Your task to perform on an android device: Open Yahoo.com Image 0: 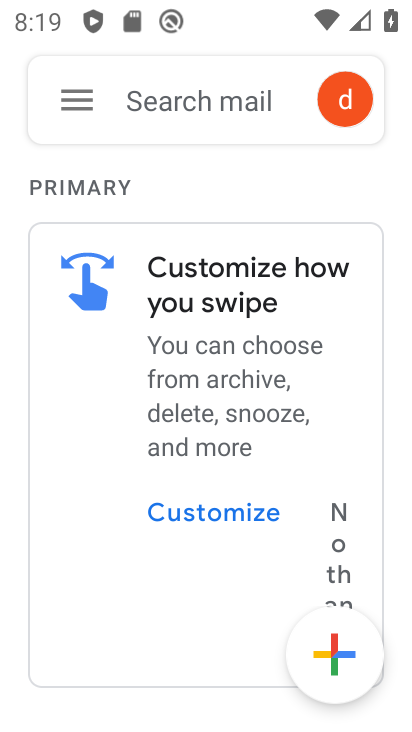
Step 0: press home button
Your task to perform on an android device: Open Yahoo.com Image 1: 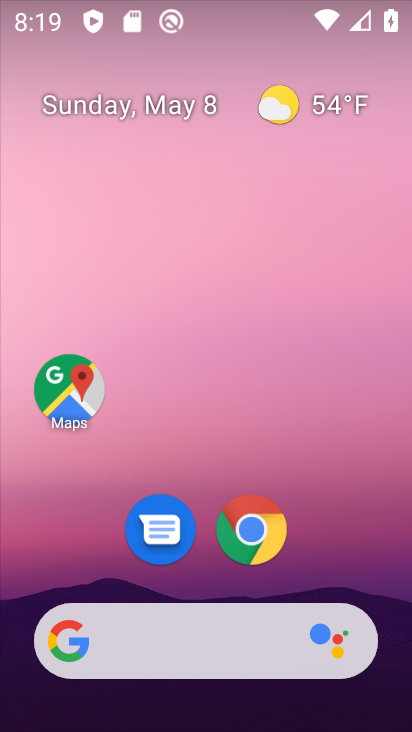
Step 1: drag from (371, 538) to (396, 102)
Your task to perform on an android device: Open Yahoo.com Image 2: 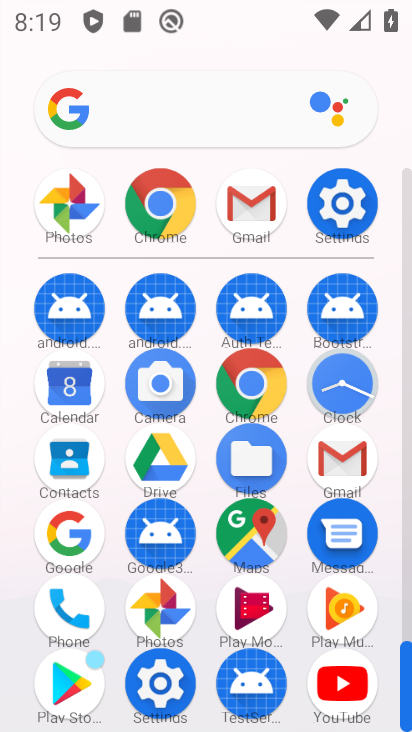
Step 2: click (151, 218)
Your task to perform on an android device: Open Yahoo.com Image 3: 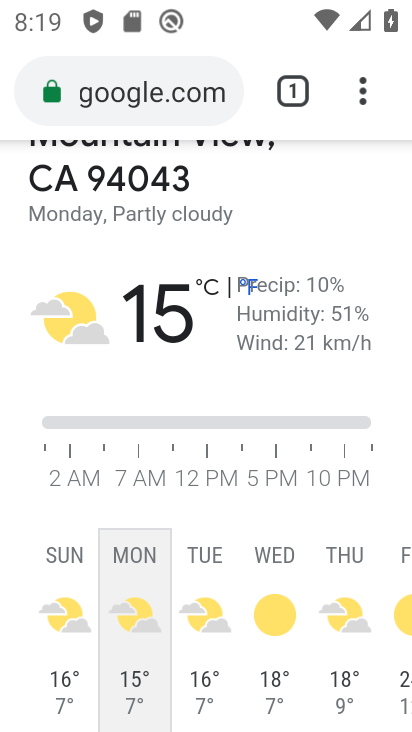
Step 3: click (147, 108)
Your task to perform on an android device: Open Yahoo.com Image 4: 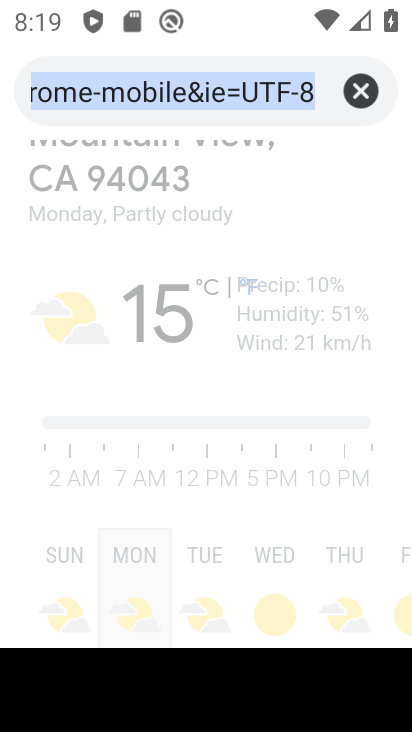
Step 4: click (362, 92)
Your task to perform on an android device: Open Yahoo.com Image 5: 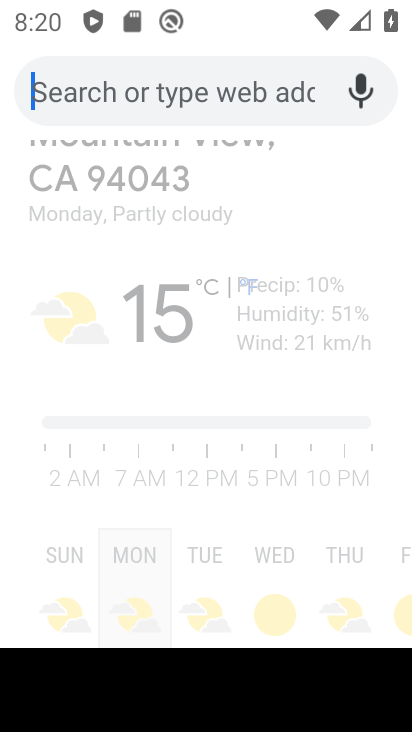
Step 5: type "yahoo.com"
Your task to perform on an android device: Open Yahoo.com Image 6: 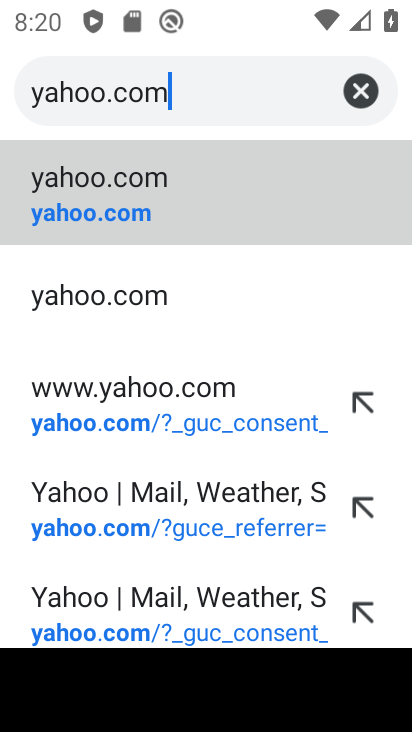
Step 6: click (69, 192)
Your task to perform on an android device: Open Yahoo.com Image 7: 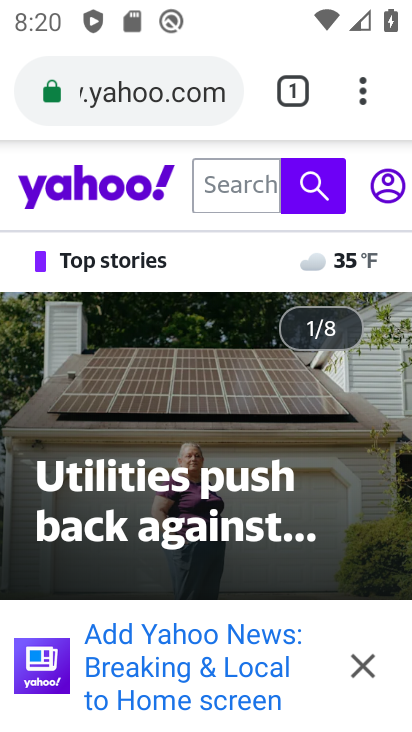
Step 7: click (348, 661)
Your task to perform on an android device: Open Yahoo.com Image 8: 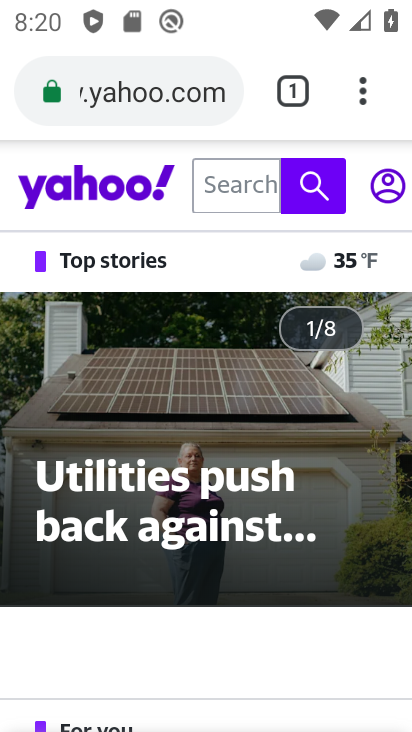
Step 8: task complete